Your task to perform on an android device: Open wifi settings Image 0: 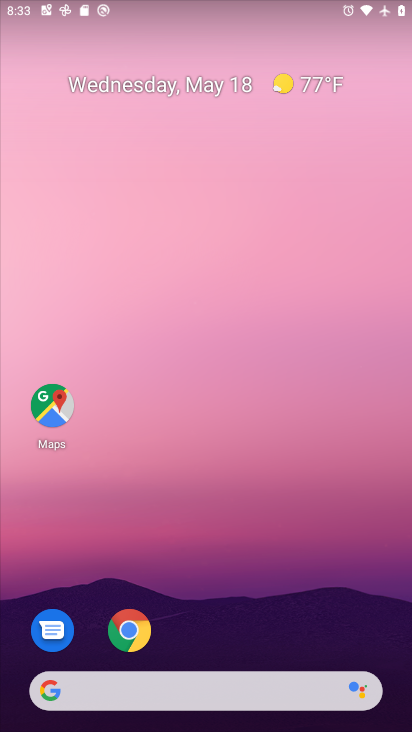
Step 0: drag from (227, 638) to (218, 154)
Your task to perform on an android device: Open wifi settings Image 1: 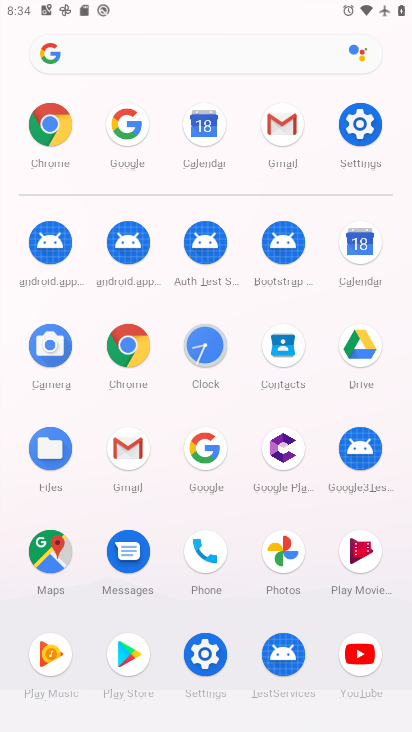
Step 1: click (375, 109)
Your task to perform on an android device: Open wifi settings Image 2: 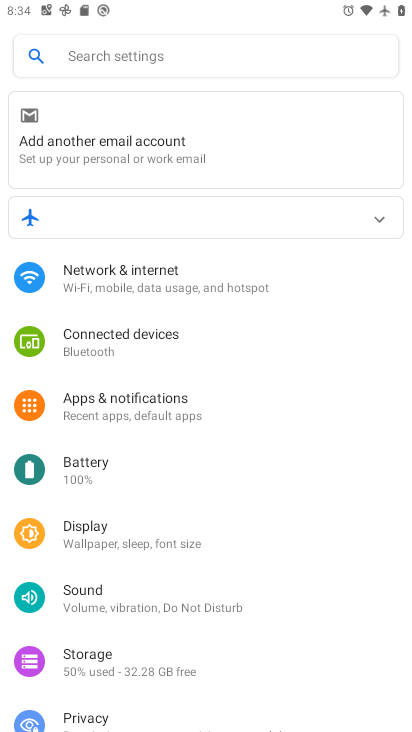
Step 2: click (217, 286)
Your task to perform on an android device: Open wifi settings Image 3: 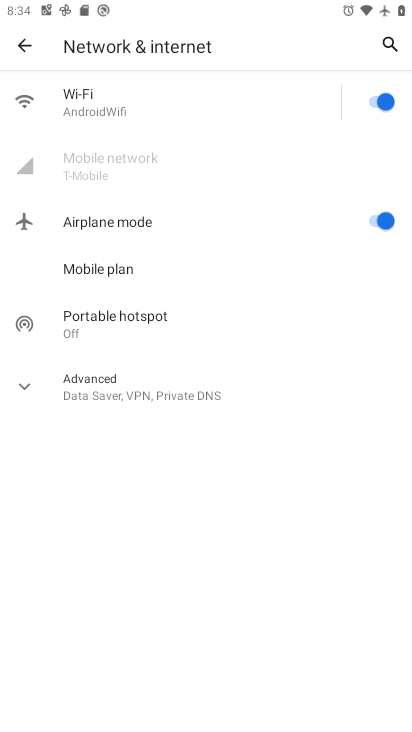
Step 3: task complete